Your task to perform on an android device: Set the phone to "Do not disturb". Image 0: 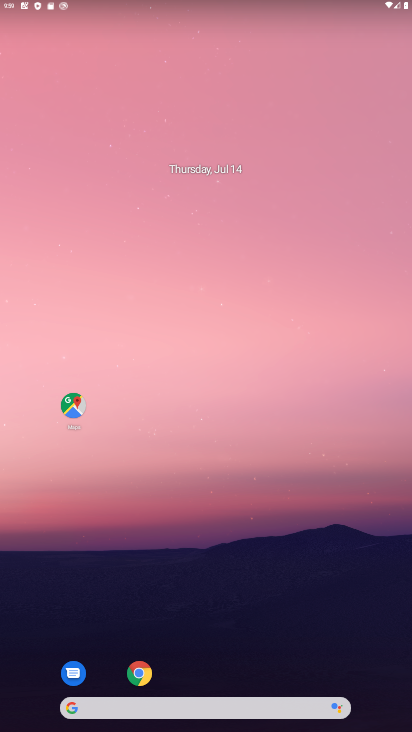
Step 0: drag from (262, 5) to (234, 158)
Your task to perform on an android device: Set the phone to "Do not disturb". Image 1: 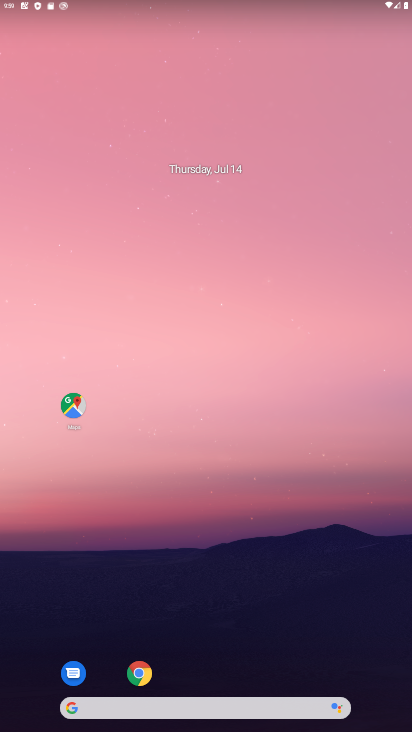
Step 1: click (234, 158)
Your task to perform on an android device: Set the phone to "Do not disturb". Image 2: 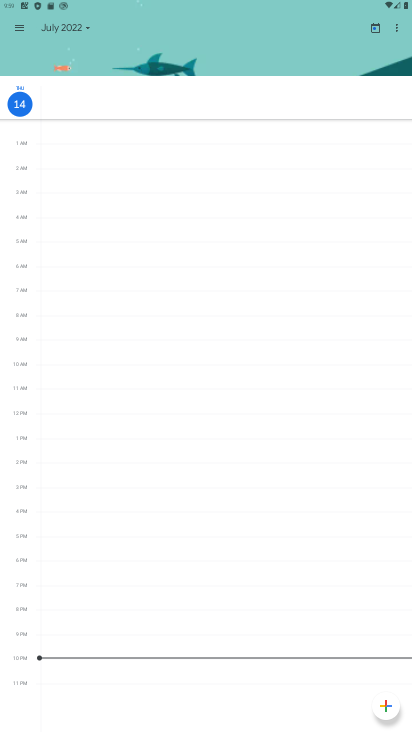
Step 2: drag from (212, 6) to (179, 298)
Your task to perform on an android device: Set the phone to "Do not disturb". Image 3: 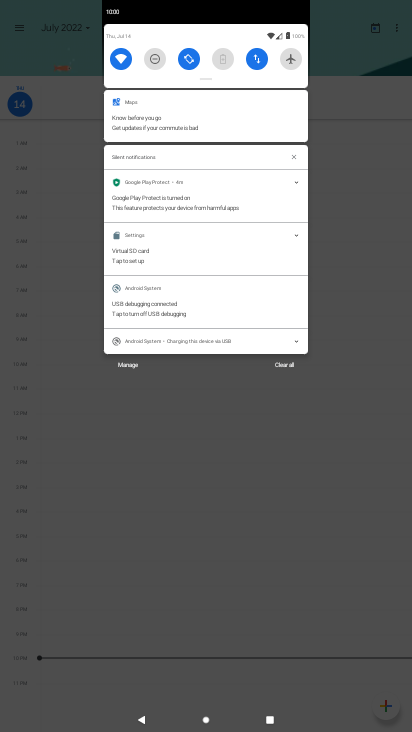
Step 3: click (157, 63)
Your task to perform on an android device: Set the phone to "Do not disturb". Image 4: 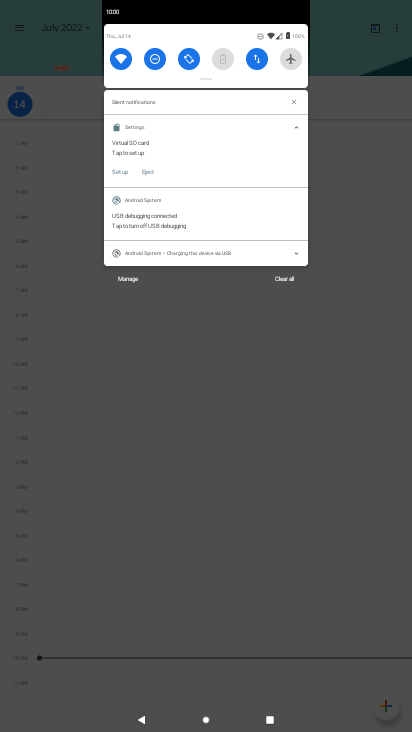
Step 4: task complete